Your task to perform on an android device: Go to Yahoo.com Image 0: 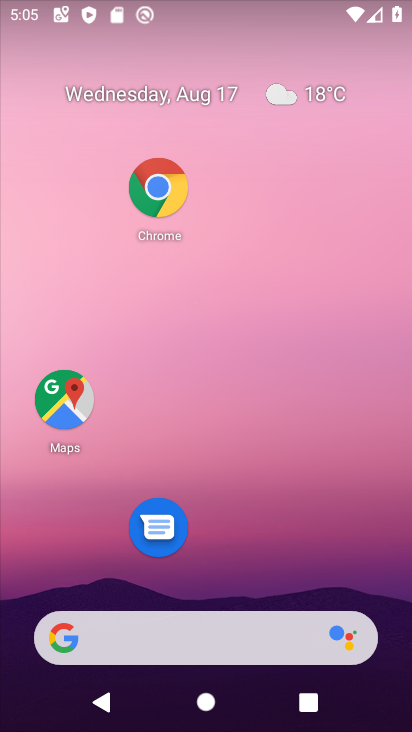
Step 0: click (144, 201)
Your task to perform on an android device: Go to Yahoo.com Image 1: 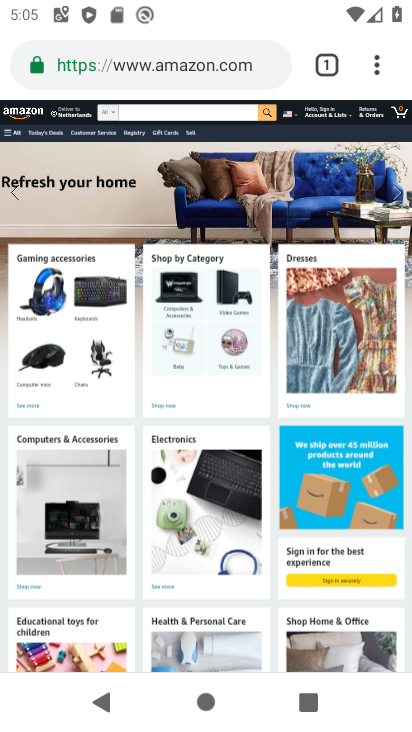
Step 1: click (331, 60)
Your task to perform on an android device: Go to Yahoo.com Image 2: 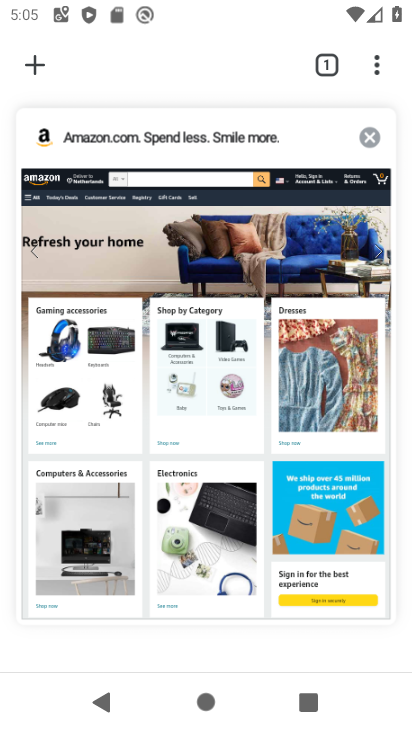
Step 2: click (32, 56)
Your task to perform on an android device: Go to Yahoo.com Image 3: 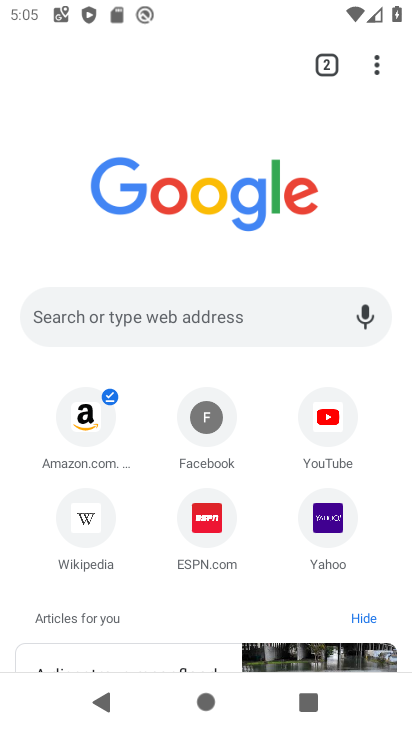
Step 3: click (333, 519)
Your task to perform on an android device: Go to Yahoo.com Image 4: 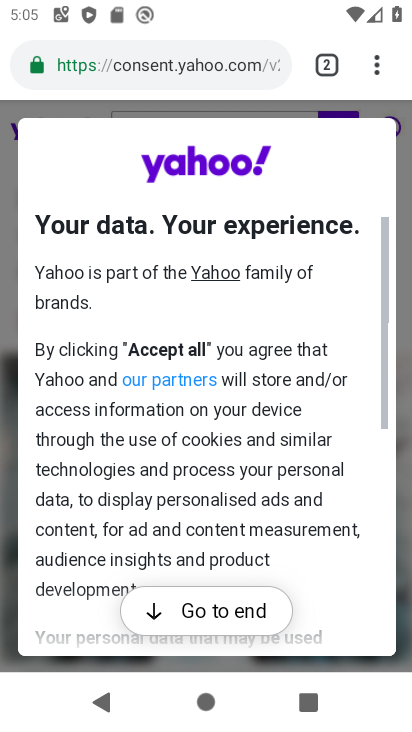
Step 4: task complete